Your task to perform on an android device: What is the recent news? Image 0: 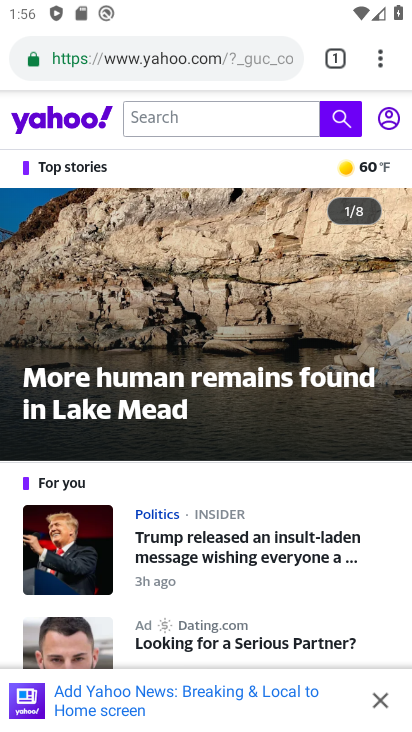
Step 0: click (149, 56)
Your task to perform on an android device: What is the recent news? Image 1: 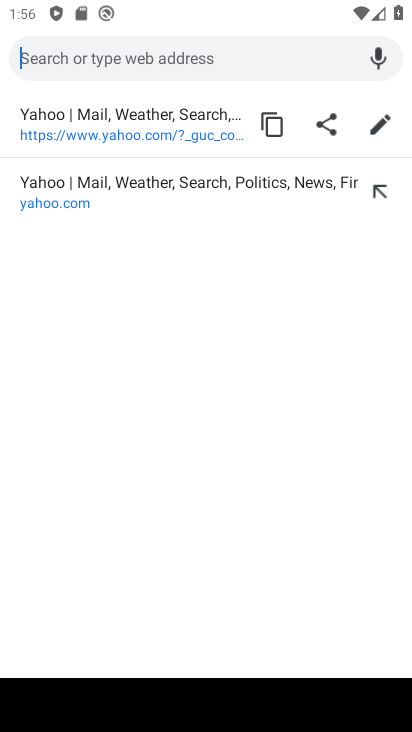
Step 1: type "What is the recent news?"
Your task to perform on an android device: What is the recent news? Image 2: 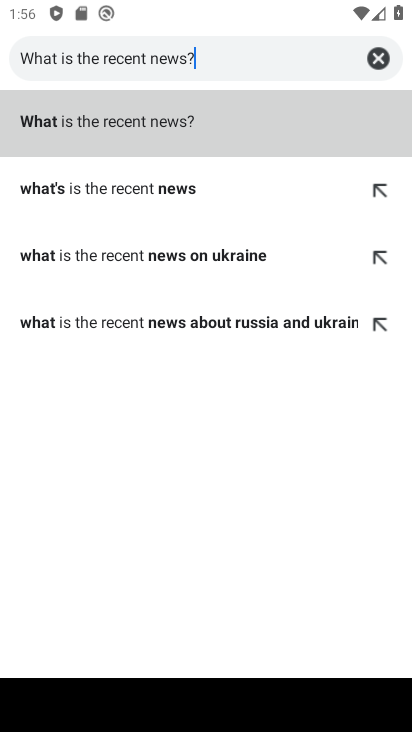
Step 2: type ""
Your task to perform on an android device: What is the recent news? Image 3: 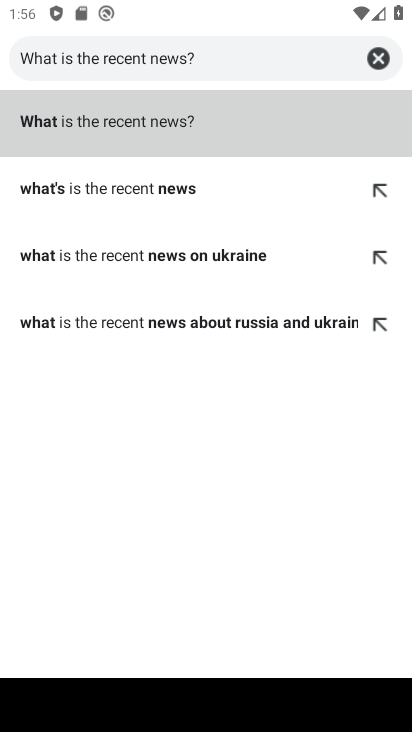
Step 3: click (181, 119)
Your task to perform on an android device: What is the recent news? Image 4: 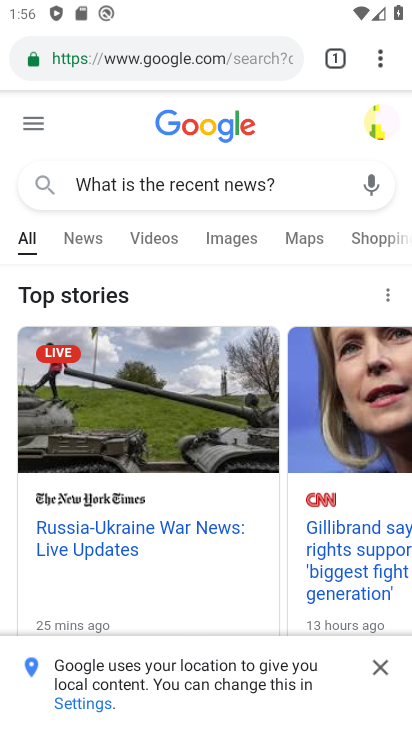
Step 4: task complete